Your task to perform on an android device: turn off picture-in-picture Image 0: 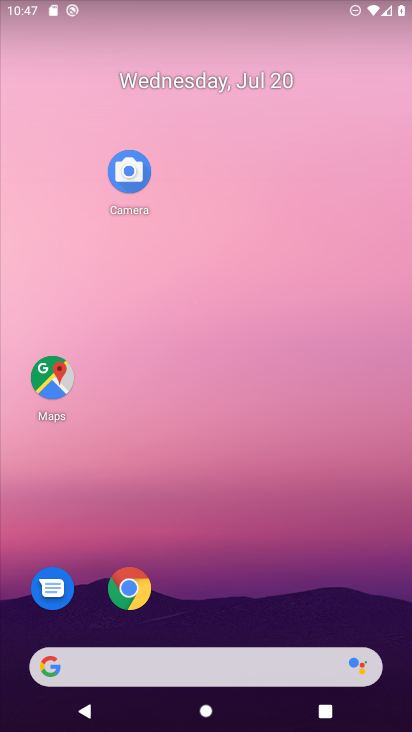
Step 0: drag from (131, 595) to (166, 594)
Your task to perform on an android device: turn off picture-in-picture Image 1: 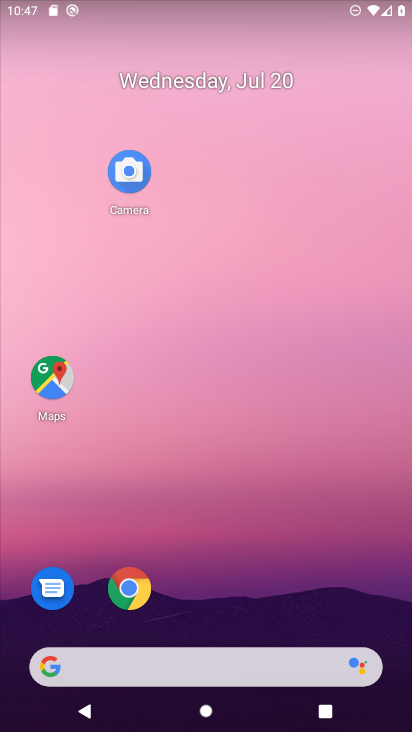
Step 1: click (131, 592)
Your task to perform on an android device: turn off picture-in-picture Image 2: 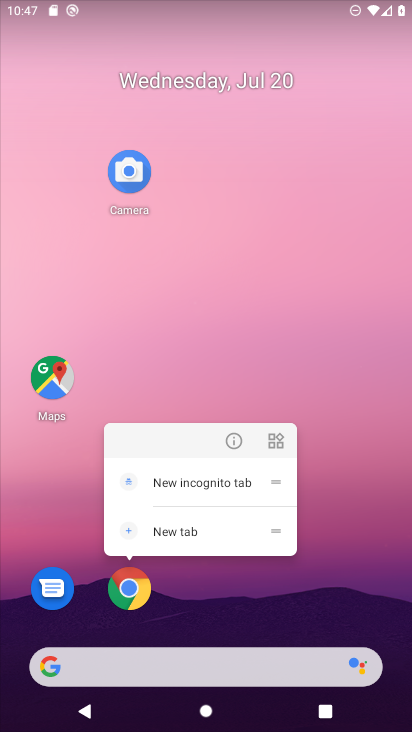
Step 2: click (228, 438)
Your task to perform on an android device: turn off picture-in-picture Image 3: 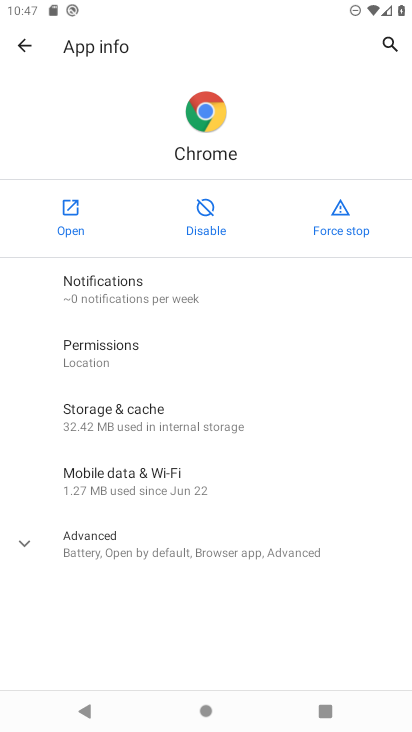
Step 3: click (17, 545)
Your task to perform on an android device: turn off picture-in-picture Image 4: 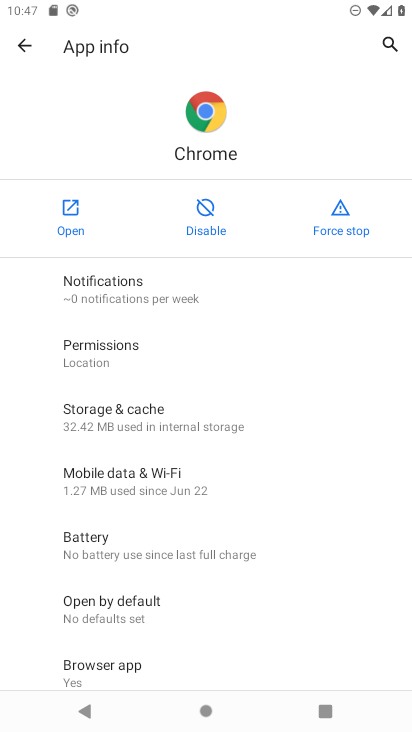
Step 4: drag from (267, 627) to (172, 284)
Your task to perform on an android device: turn off picture-in-picture Image 5: 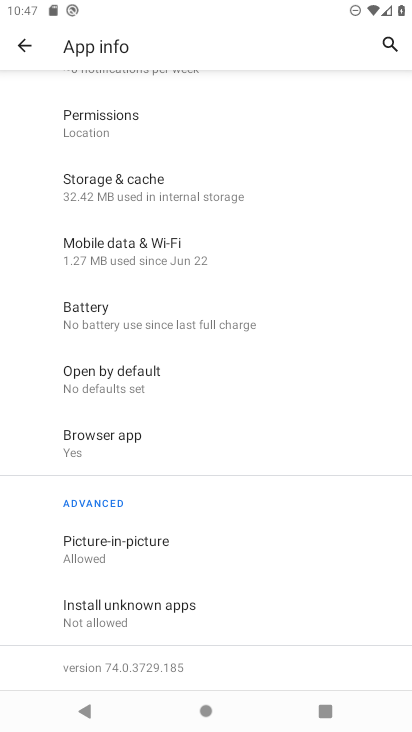
Step 5: click (129, 556)
Your task to perform on an android device: turn off picture-in-picture Image 6: 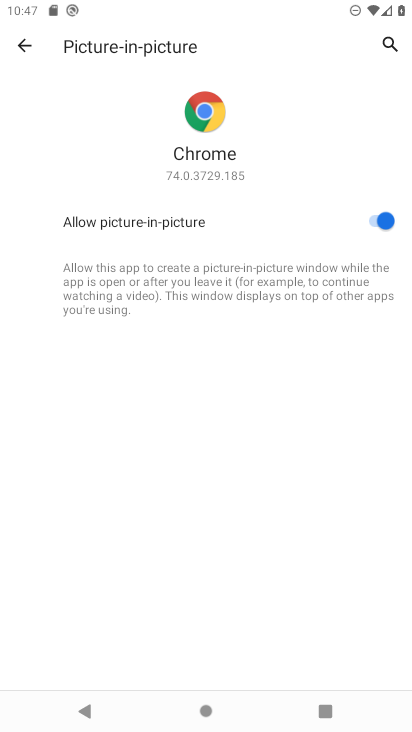
Step 6: click (371, 223)
Your task to perform on an android device: turn off picture-in-picture Image 7: 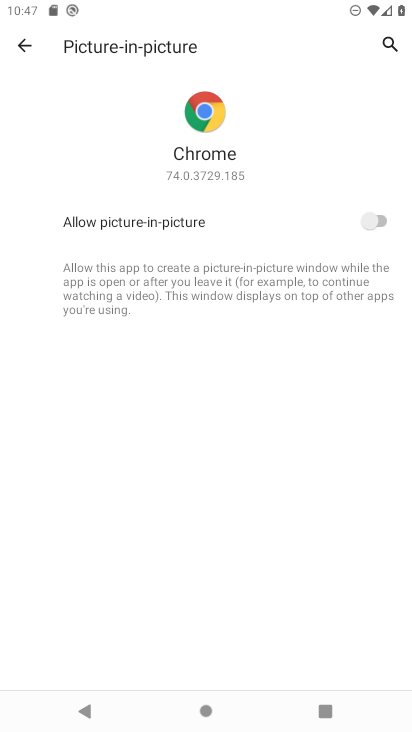
Step 7: task complete